Your task to perform on an android device: change keyboard looks Image 0: 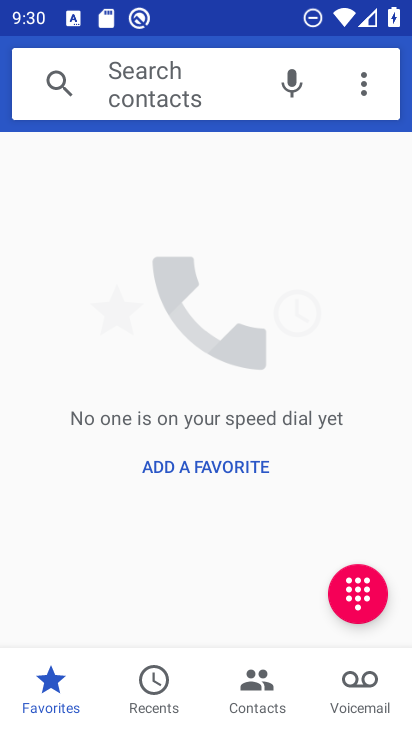
Step 0: press home button
Your task to perform on an android device: change keyboard looks Image 1: 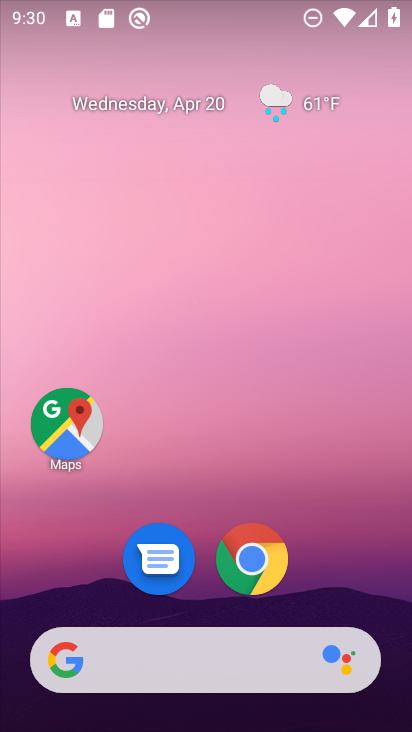
Step 1: drag from (377, 605) to (273, 69)
Your task to perform on an android device: change keyboard looks Image 2: 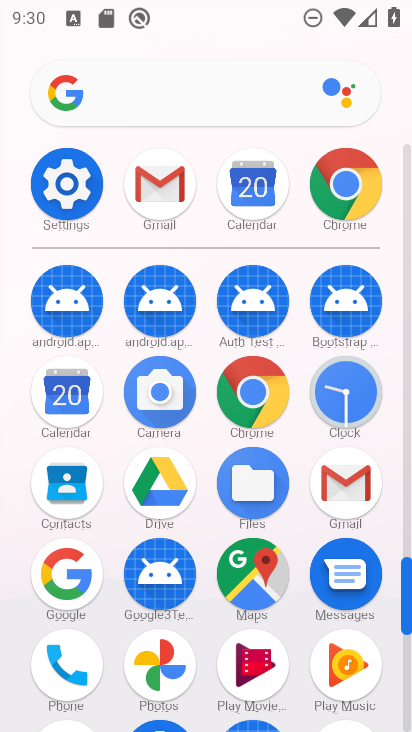
Step 2: click (408, 684)
Your task to perform on an android device: change keyboard looks Image 3: 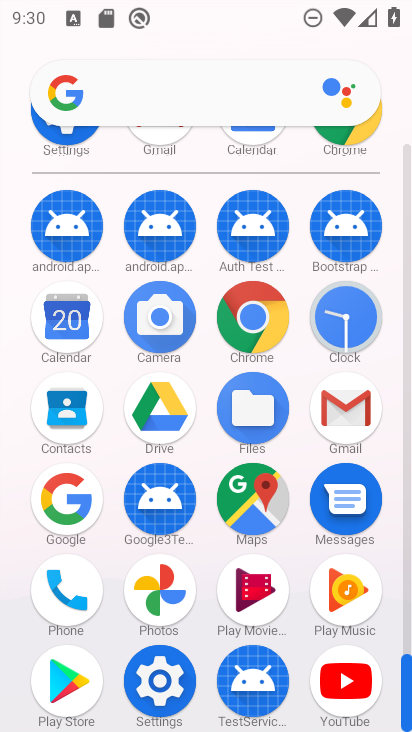
Step 3: click (154, 682)
Your task to perform on an android device: change keyboard looks Image 4: 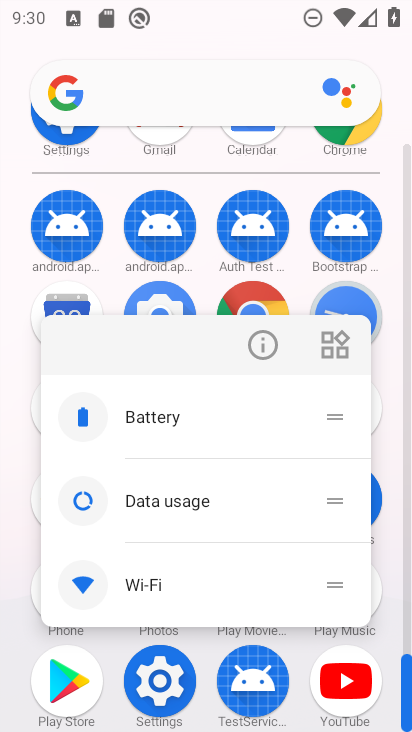
Step 4: click (159, 683)
Your task to perform on an android device: change keyboard looks Image 5: 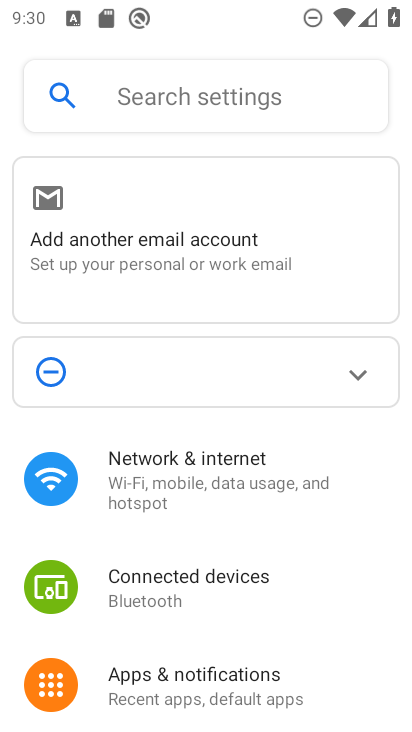
Step 5: drag from (347, 649) to (322, 162)
Your task to perform on an android device: change keyboard looks Image 6: 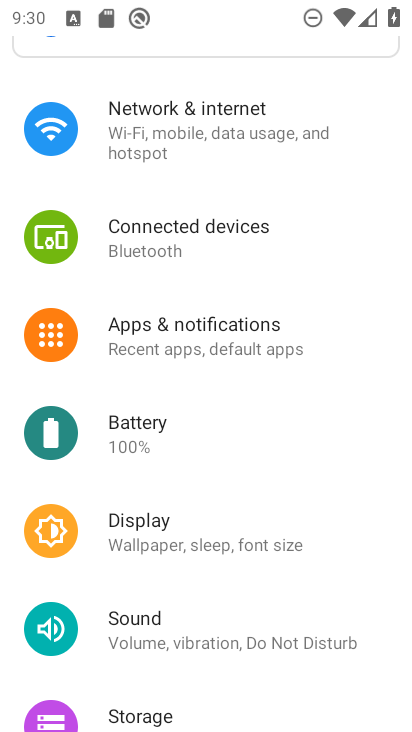
Step 6: drag from (332, 585) to (322, 203)
Your task to perform on an android device: change keyboard looks Image 7: 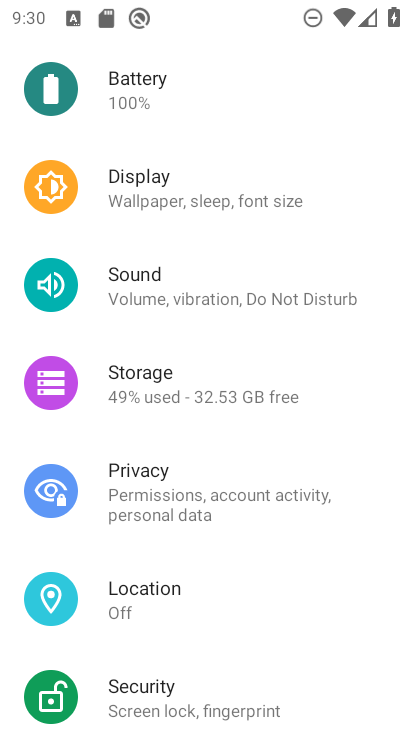
Step 7: drag from (339, 473) to (336, 155)
Your task to perform on an android device: change keyboard looks Image 8: 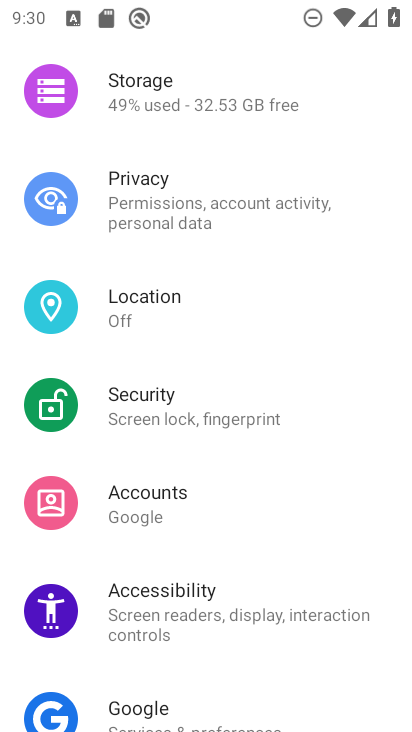
Step 8: drag from (323, 546) to (332, 194)
Your task to perform on an android device: change keyboard looks Image 9: 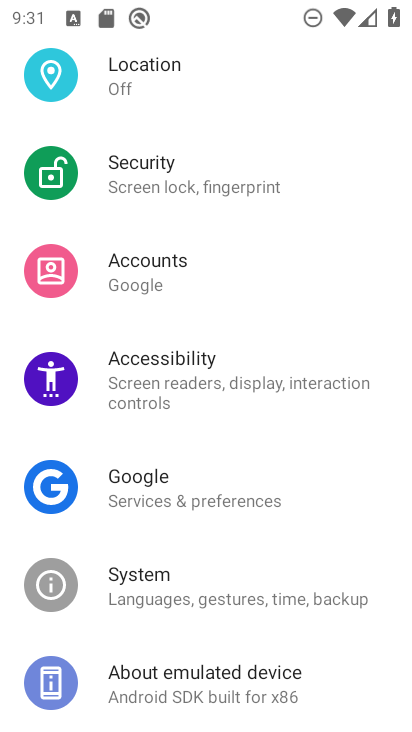
Step 9: click (158, 569)
Your task to perform on an android device: change keyboard looks Image 10: 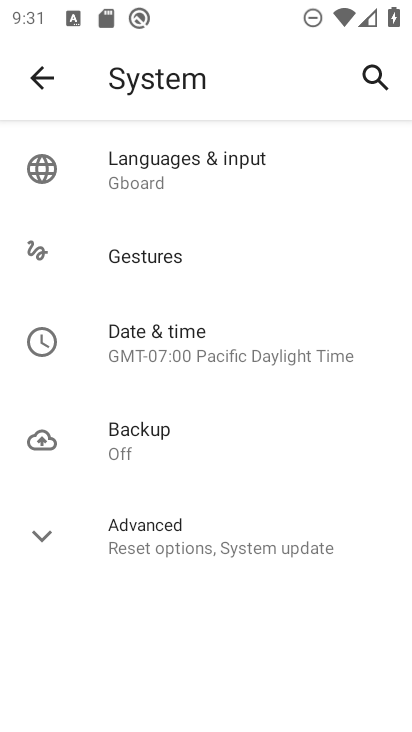
Step 10: click (139, 159)
Your task to perform on an android device: change keyboard looks Image 11: 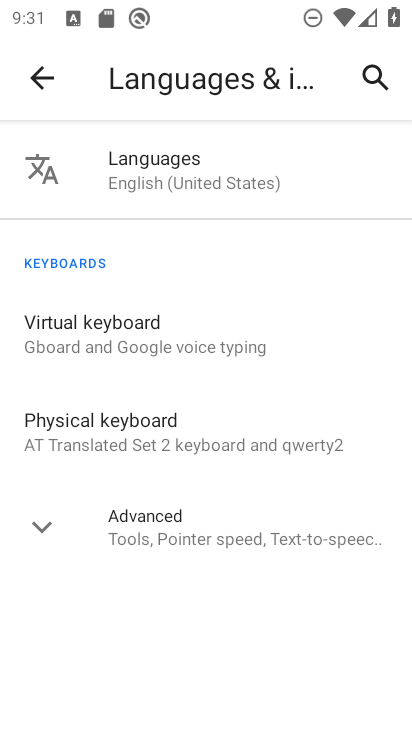
Step 11: click (87, 416)
Your task to perform on an android device: change keyboard looks Image 12: 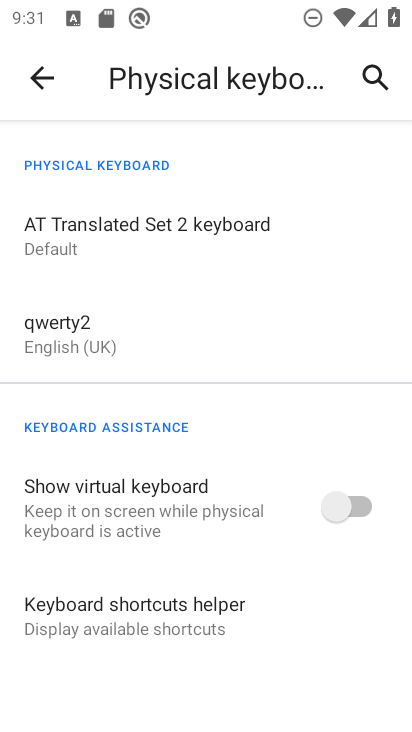
Step 12: click (71, 239)
Your task to perform on an android device: change keyboard looks Image 13: 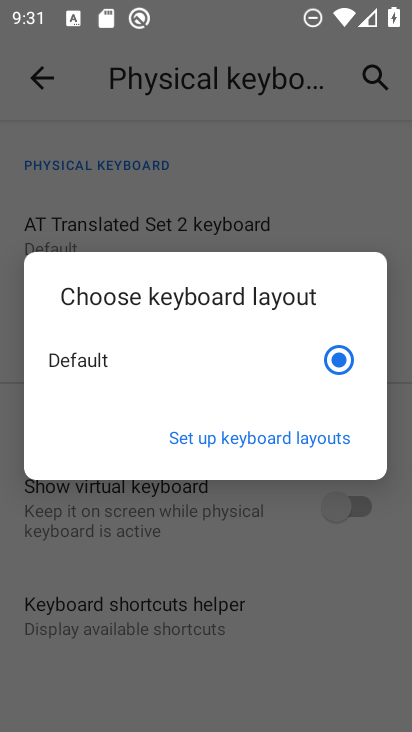
Step 13: click (247, 437)
Your task to perform on an android device: change keyboard looks Image 14: 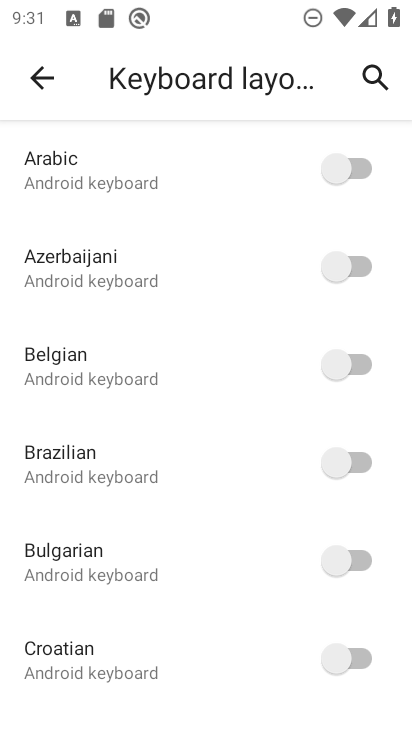
Step 14: drag from (267, 617) to (236, 309)
Your task to perform on an android device: change keyboard looks Image 15: 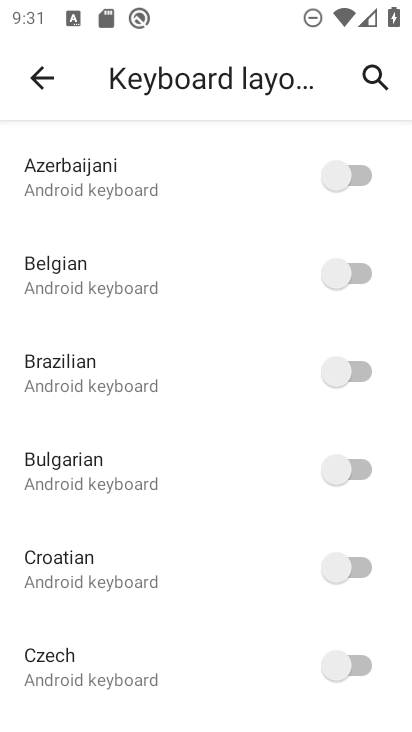
Step 15: drag from (213, 621) to (229, 235)
Your task to perform on an android device: change keyboard looks Image 16: 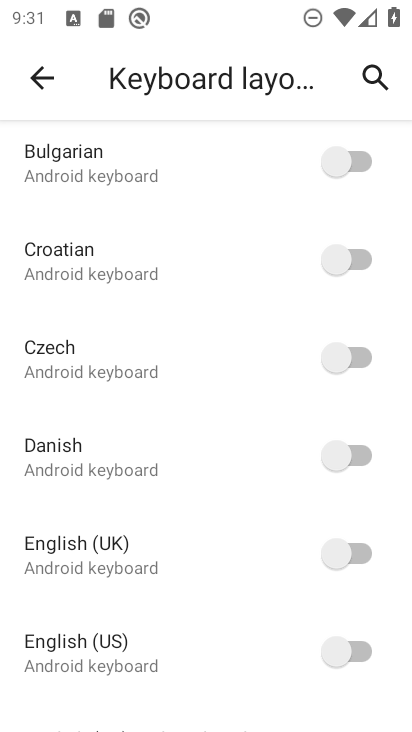
Step 16: click (361, 557)
Your task to perform on an android device: change keyboard looks Image 17: 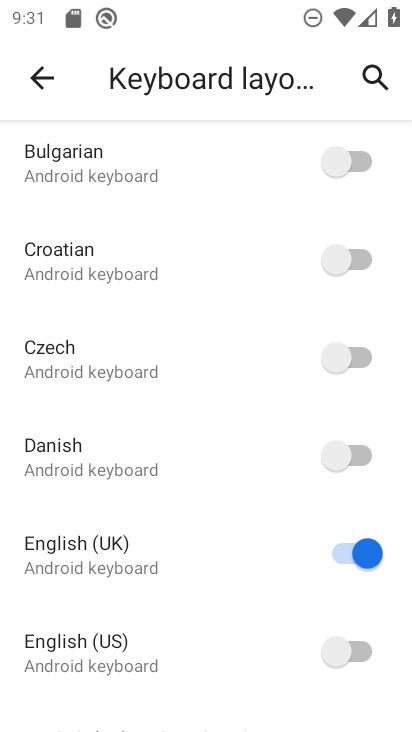
Step 17: task complete